Your task to perform on an android device: change timer sound Image 0: 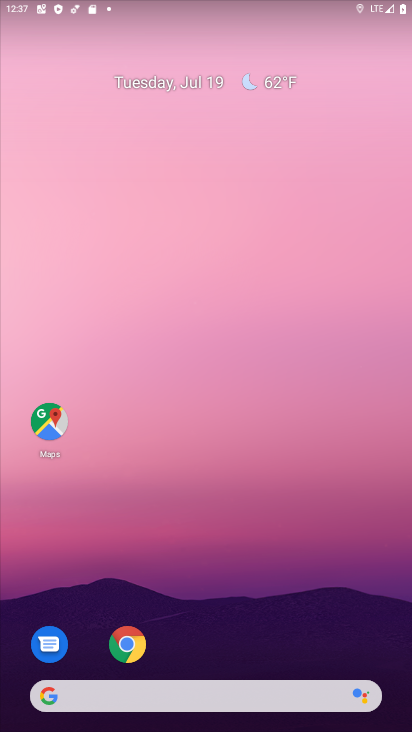
Step 0: drag from (223, 606) to (174, 160)
Your task to perform on an android device: change timer sound Image 1: 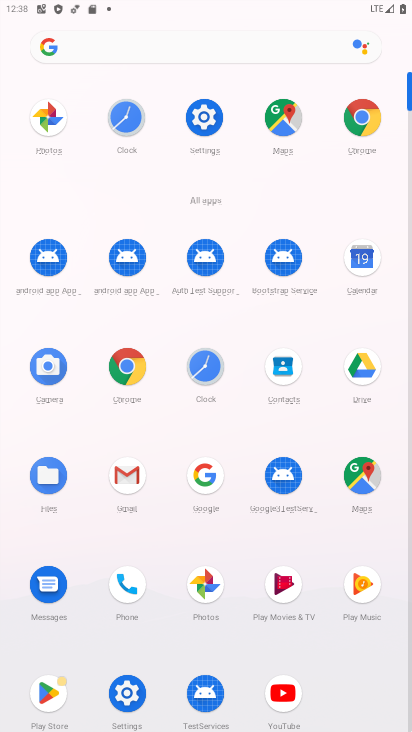
Step 1: click (198, 362)
Your task to perform on an android device: change timer sound Image 2: 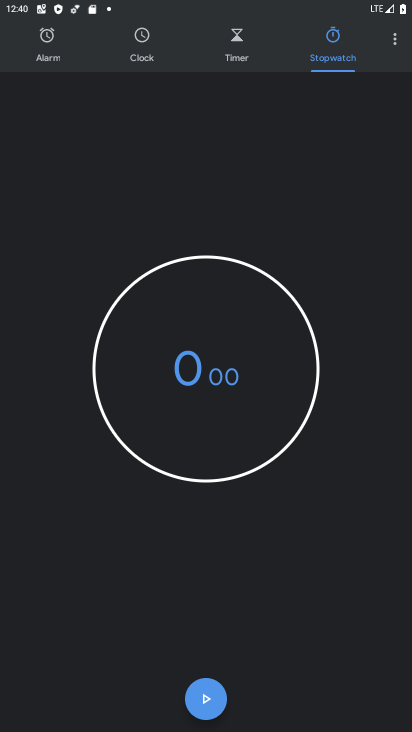
Step 2: press home button
Your task to perform on an android device: change timer sound Image 3: 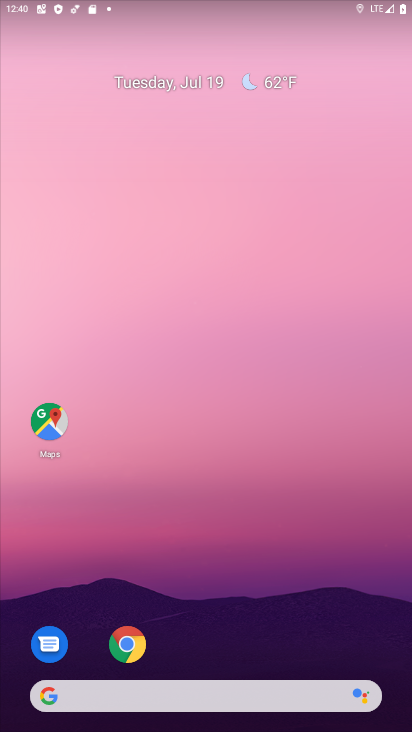
Step 3: drag from (202, 597) to (191, 104)
Your task to perform on an android device: change timer sound Image 4: 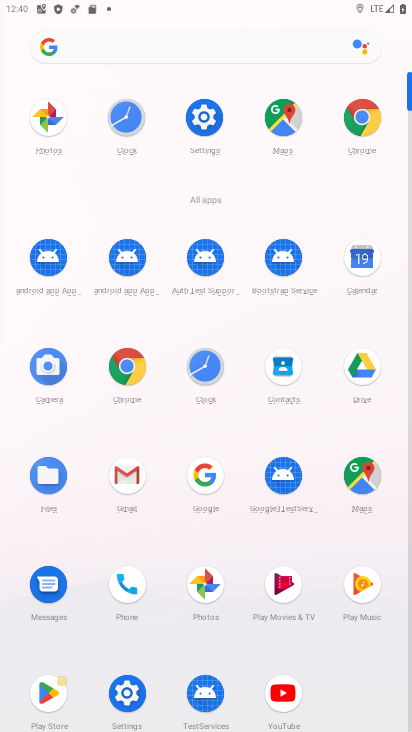
Step 4: click (114, 110)
Your task to perform on an android device: change timer sound Image 5: 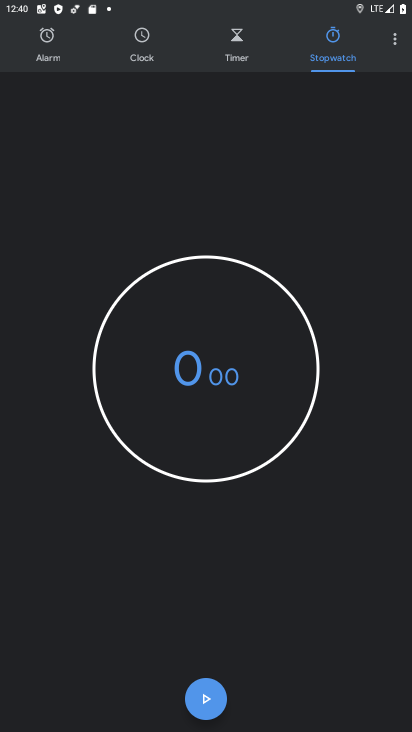
Step 5: click (397, 40)
Your task to perform on an android device: change timer sound Image 6: 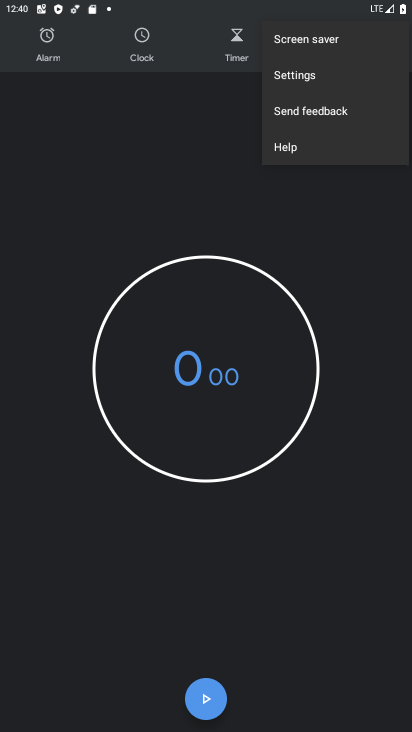
Step 6: click (307, 82)
Your task to perform on an android device: change timer sound Image 7: 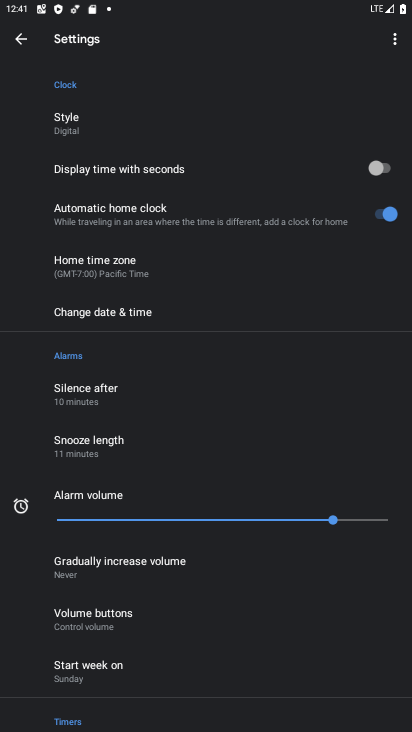
Step 7: drag from (268, 649) to (225, 199)
Your task to perform on an android device: change timer sound Image 8: 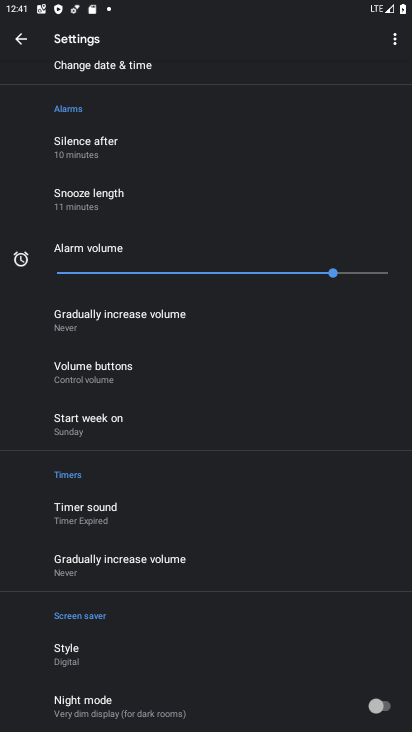
Step 8: click (102, 482)
Your task to perform on an android device: change timer sound Image 9: 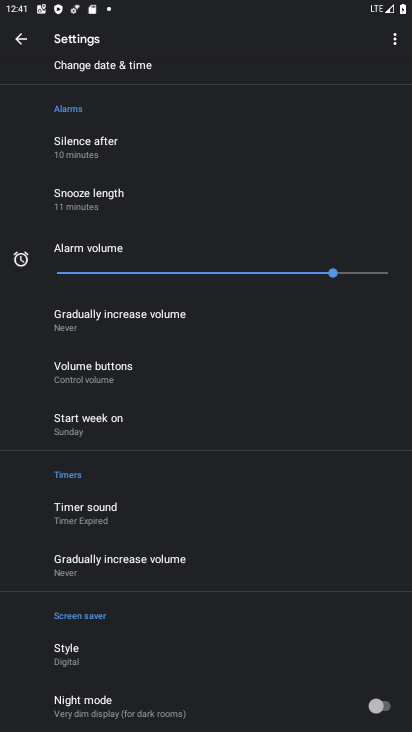
Step 9: click (90, 508)
Your task to perform on an android device: change timer sound Image 10: 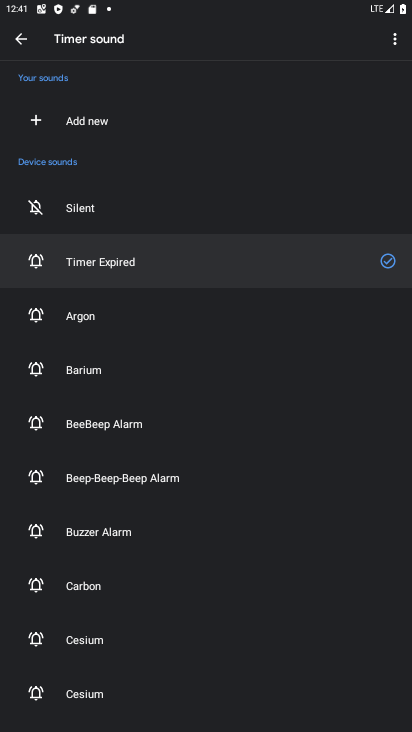
Step 10: click (79, 323)
Your task to perform on an android device: change timer sound Image 11: 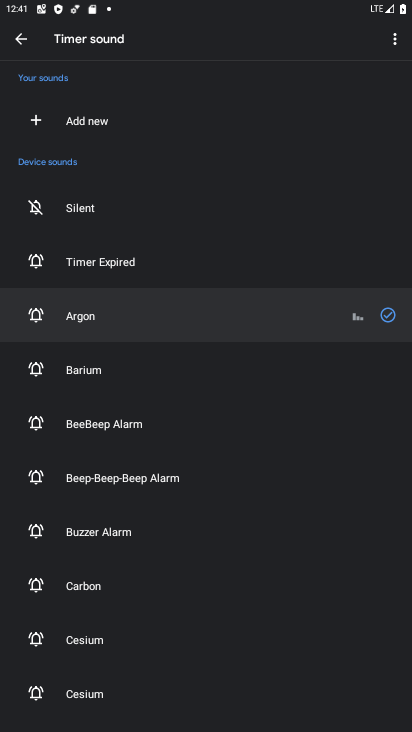
Step 11: task complete